Your task to perform on an android device: Open calendar and show me the first week of next month Image 0: 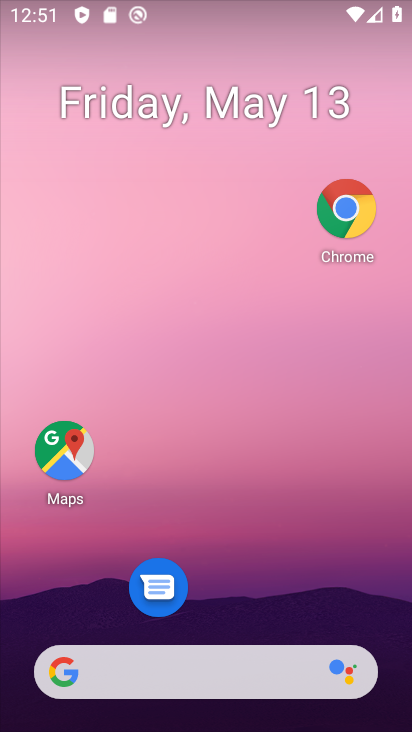
Step 0: drag from (202, 562) to (254, 40)
Your task to perform on an android device: Open calendar and show me the first week of next month Image 1: 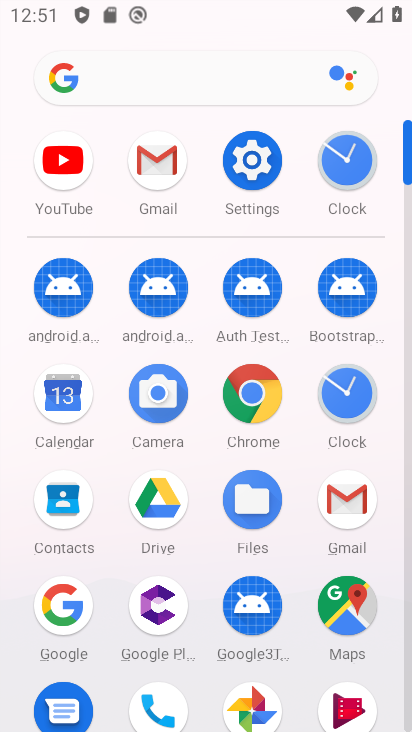
Step 1: click (73, 394)
Your task to perform on an android device: Open calendar and show me the first week of next month Image 2: 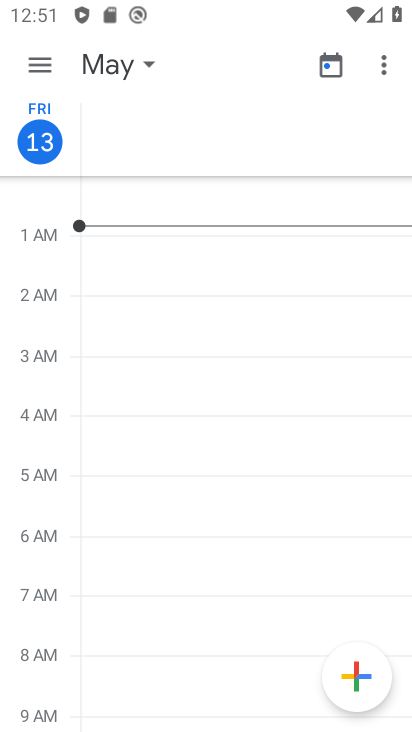
Step 2: click (115, 63)
Your task to perform on an android device: Open calendar and show me the first week of next month Image 3: 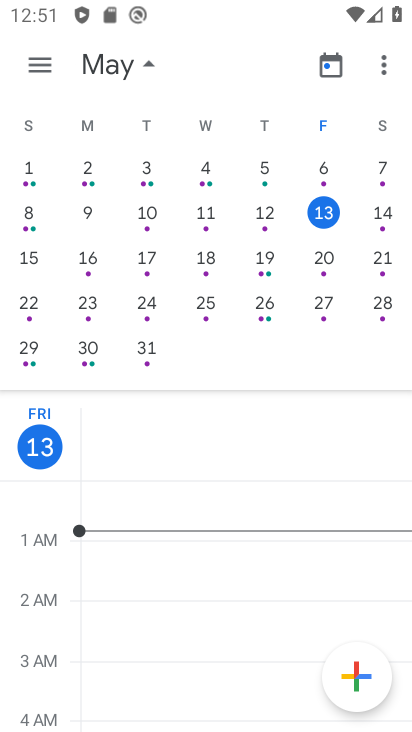
Step 3: drag from (382, 231) to (60, 245)
Your task to perform on an android device: Open calendar and show me the first week of next month Image 4: 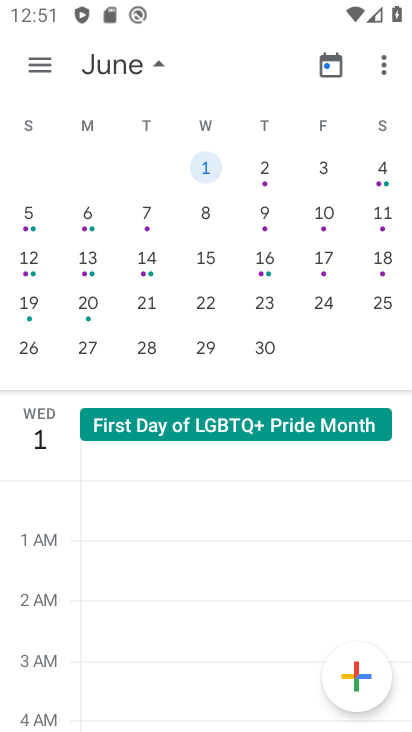
Step 4: click (209, 160)
Your task to perform on an android device: Open calendar and show me the first week of next month Image 5: 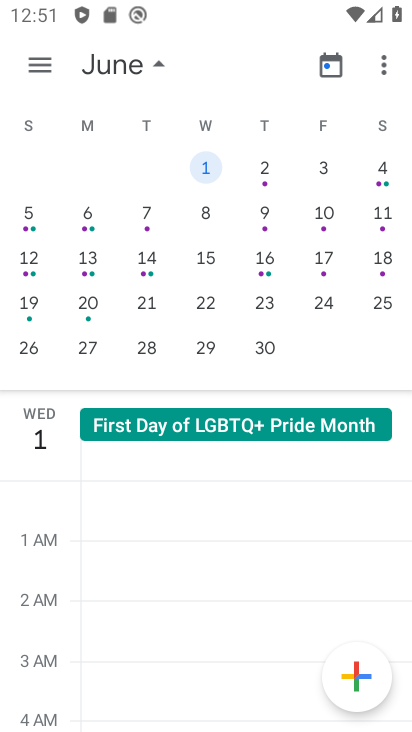
Step 5: click (26, 67)
Your task to perform on an android device: Open calendar and show me the first week of next month Image 6: 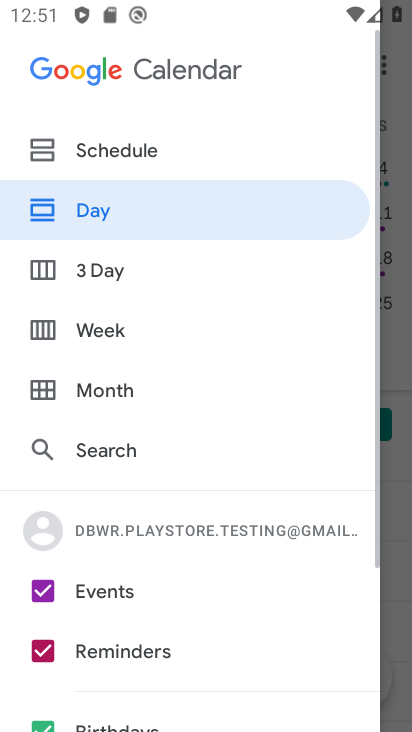
Step 6: click (109, 140)
Your task to perform on an android device: Open calendar and show me the first week of next month Image 7: 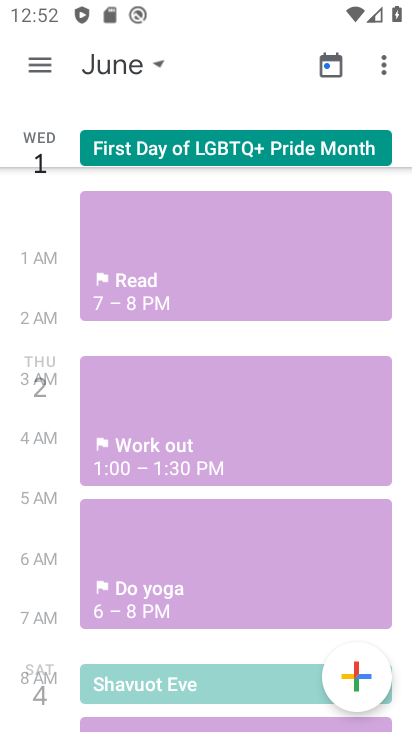
Step 7: task complete